Your task to perform on an android device: turn off priority inbox in the gmail app Image 0: 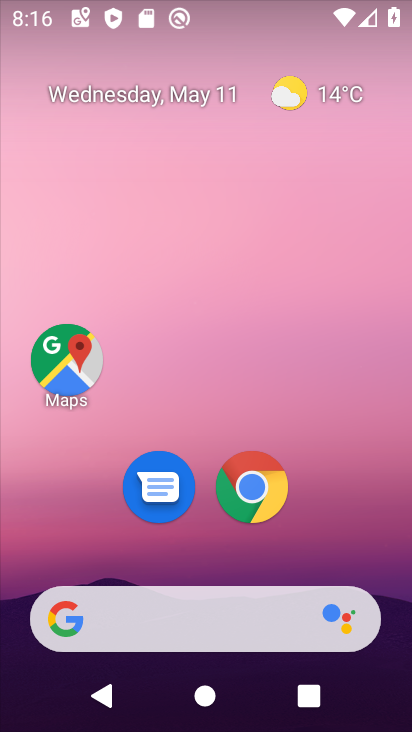
Step 0: drag from (218, 581) to (218, 161)
Your task to perform on an android device: turn off priority inbox in the gmail app Image 1: 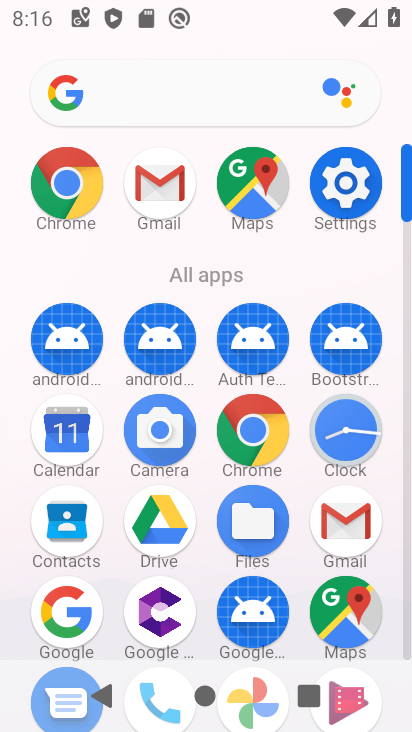
Step 1: click (157, 176)
Your task to perform on an android device: turn off priority inbox in the gmail app Image 2: 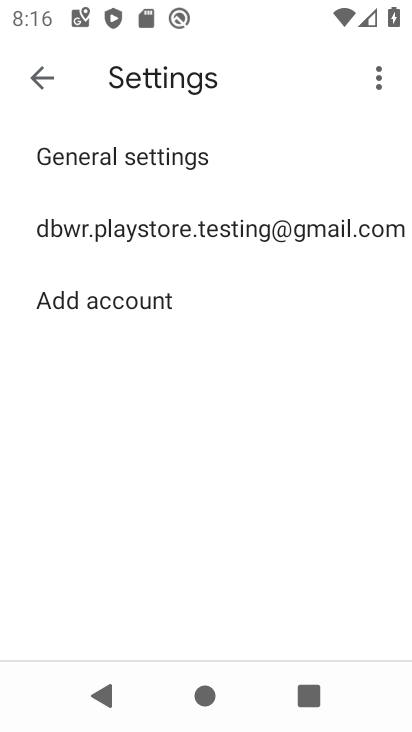
Step 2: click (167, 225)
Your task to perform on an android device: turn off priority inbox in the gmail app Image 3: 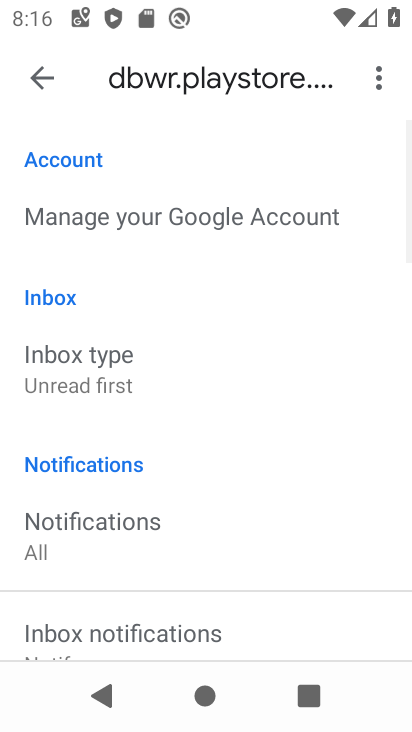
Step 3: click (82, 366)
Your task to perform on an android device: turn off priority inbox in the gmail app Image 4: 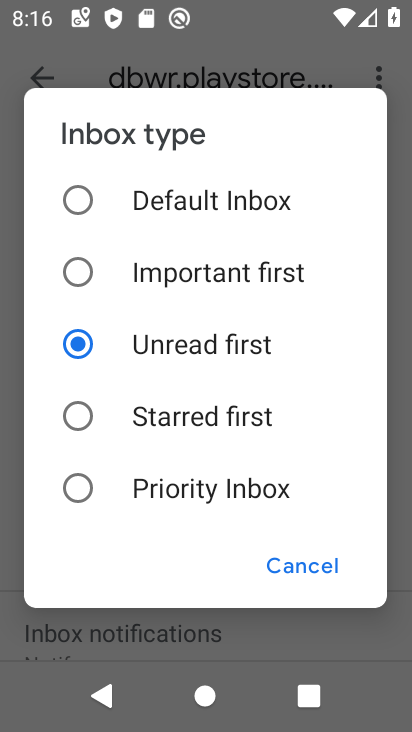
Step 4: click (295, 568)
Your task to perform on an android device: turn off priority inbox in the gmail app Image 5: 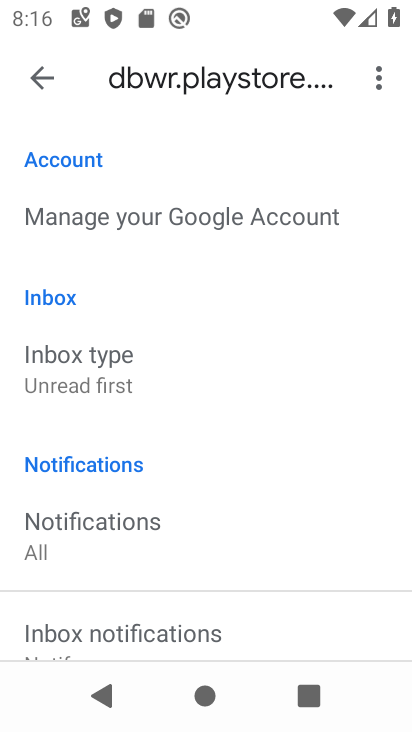
Step 5: task complete